Your task to perform on an android device: make emails show in primary in the gmail app Image 0: 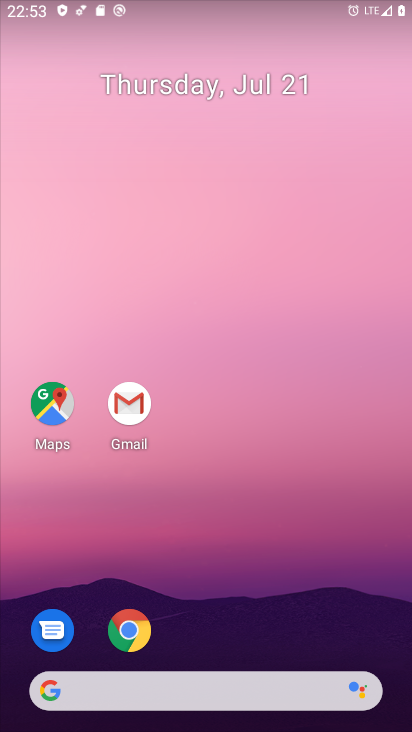
Step 0: drag from (247, 573) to (257, 131)
Your task to perform on an android device: make emails show in primary in the gmail app Image 1: 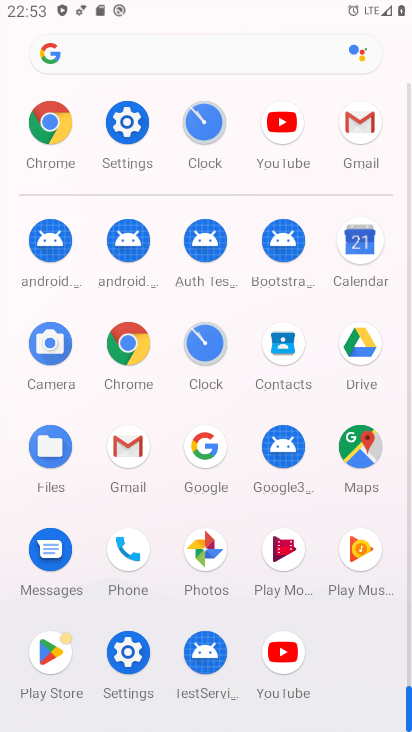
Step 1: click (132, 444)
Your task to perform on an android device: make emails show in primary in the gmail app Image 2: 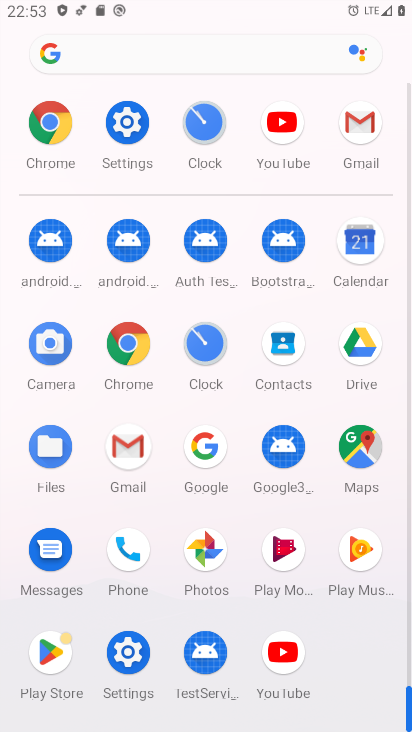
Step 2: click (132, 445)
Your task to perform on an android device: make emails show in primary in the gmail app Image 3: 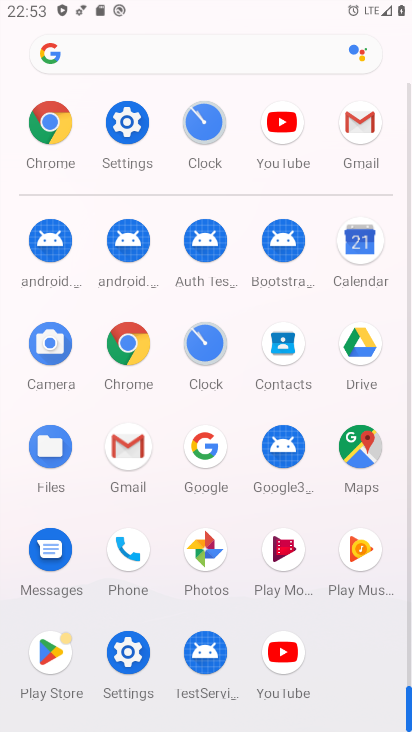
Step 3: click (132, 445)
Your task to perform on an android device: make emails show in primary in the gmail app Image 4: 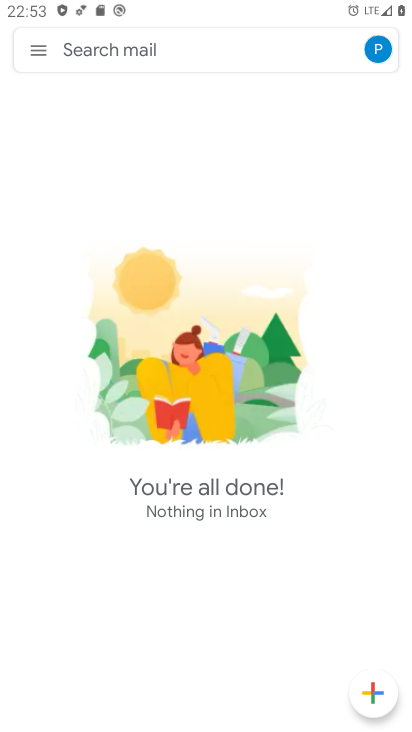
Step 4: click (28, 44)
Your task to perform on an android device: make emails show in primary in the gmail app Image 5: 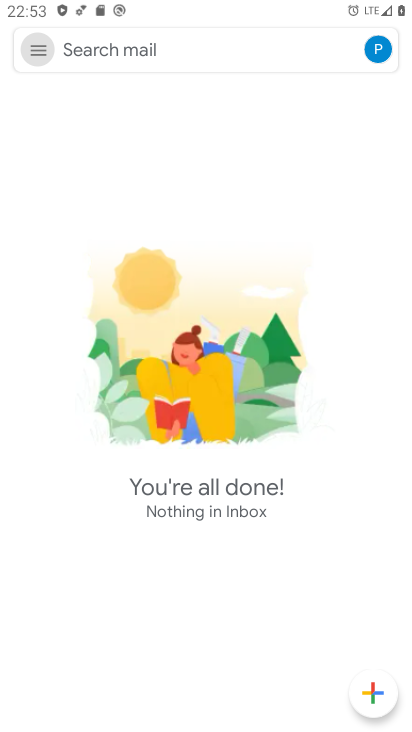
Step 5: click (29, 45)
Your task to perform on an android device: make emails show in primary in the gmail app Image 6: 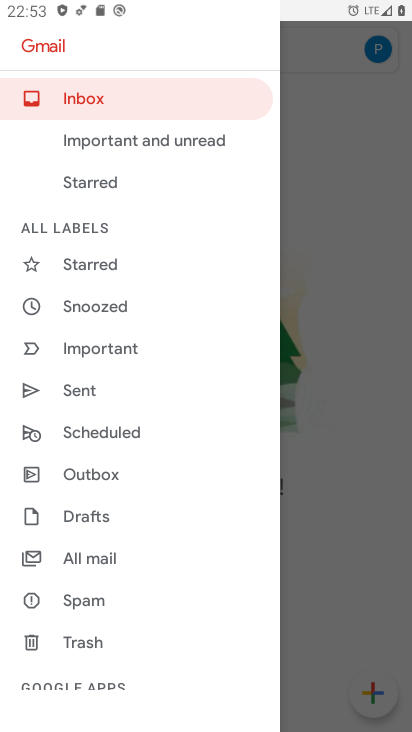
Step 6: drag from (108, 554) to (116, 288)
Your task to perform on an android device: make emails show in primary in the gmail app Image 7: 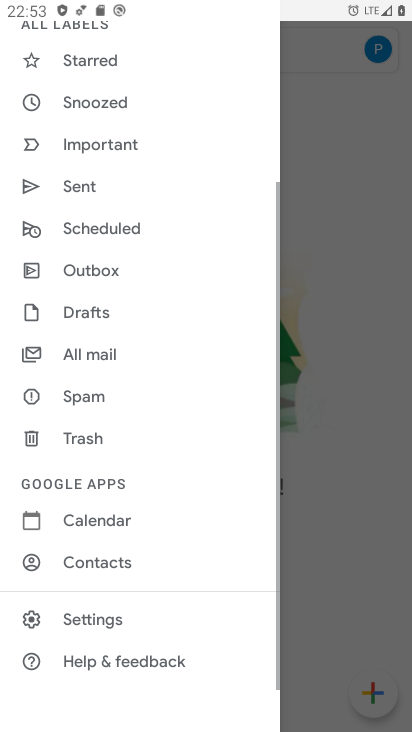
Step 7: drag from (144, 397) to (144, 214)
Your task to perform on an android device: make emails show in primary in the gmail app Image 8: 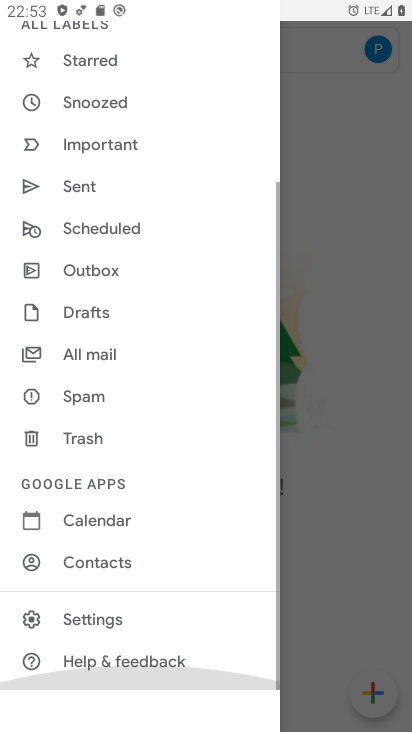
Step 8: drag from (144, 460) to (149, 358)
Your task to perform on an android device: make emails show in primary in the gmail app Image 9: 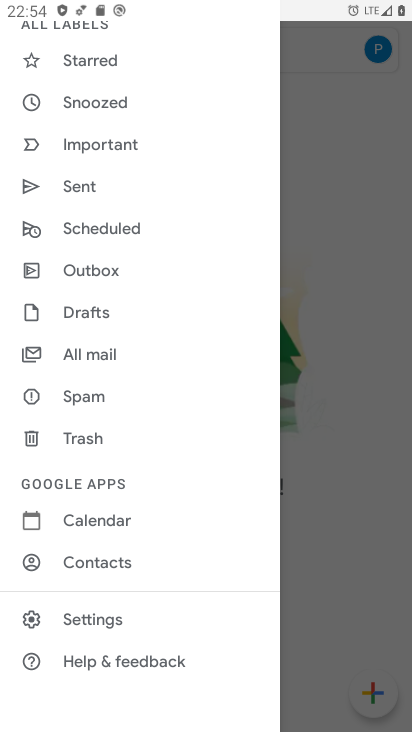
Step 9: click (96, 614)
Your task to perform on an android device: make emails show in primary in the gmail app Image 10: 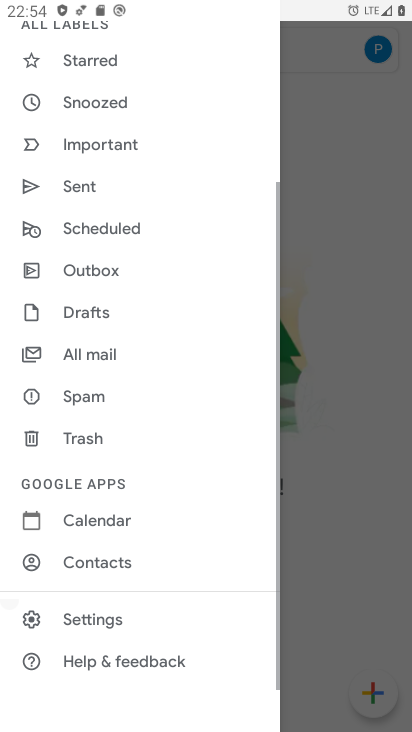
Step 10: click (94, 614)
Your task to perform on an android device: make emails show in primary in the gmail app Image 11: 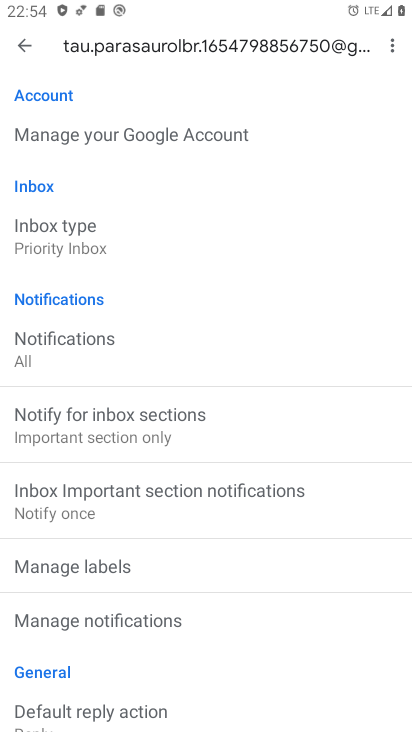
Step 11: click (46, 234)
Your task to perform on an android device: make emails show in primary in the gmail app Image 12: 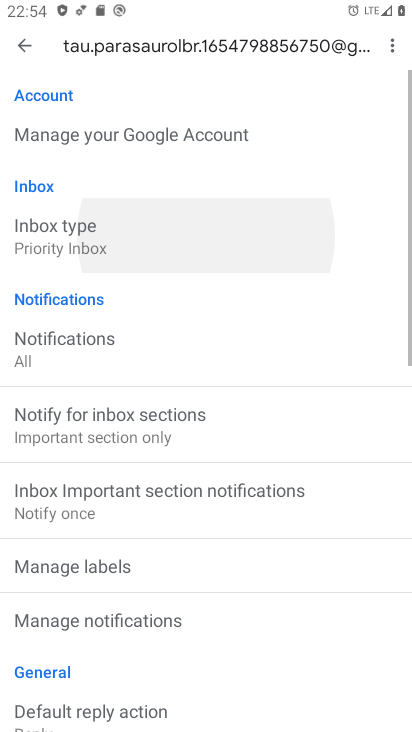
Step 12: click (45, 232)
Your task to perform on an android device: make emails show in primary in the gmail app Image 13: 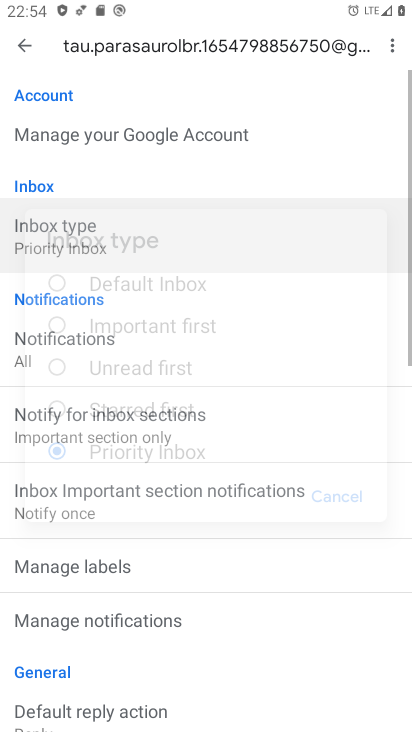
Step 13: click (45, 232)
Your task to perform on an android device: make emails show in primary in the gmail app Image 14: 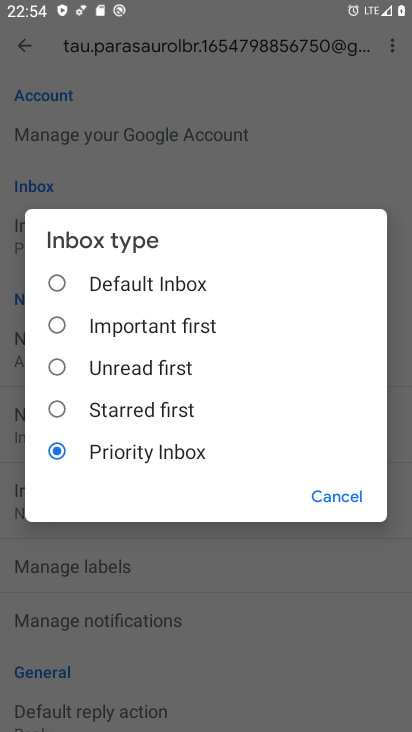
Step 14: click (48, 278)
Your task to perform on an android device: make emails show in primary in the gmail app Image 15: 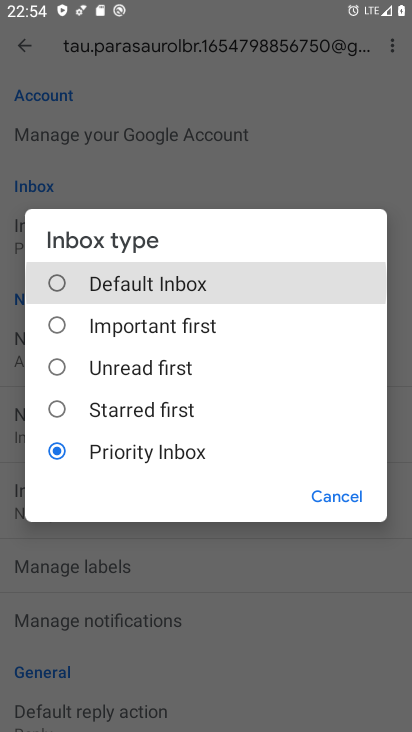
Step 15: click (49, 277)
Your task to perform on an android device: make emails show in primary in the gmail app Image 16: 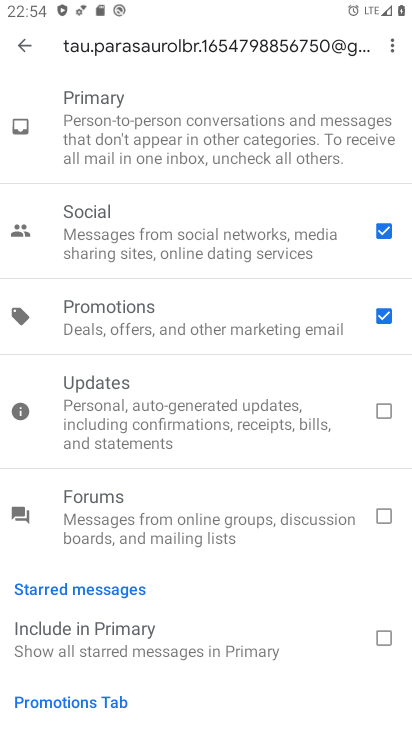
Step 16: click (103, 137)
Your task to perform on an android device: make emails show in primary in the gmail app Image 17: 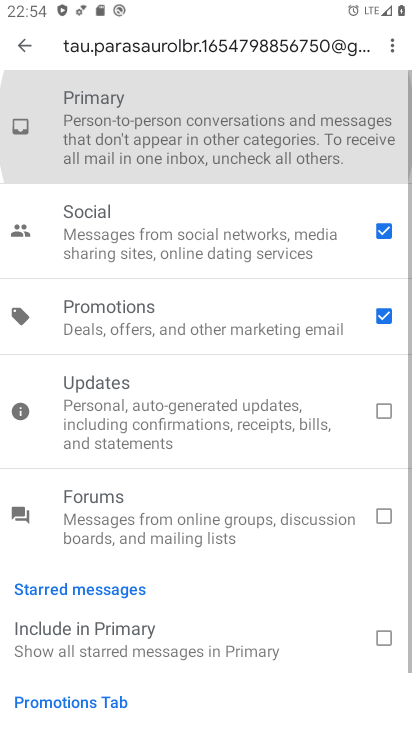
Step 17: click (102, 136)
Your task to perform on an android device: make emails show in primary in the gmail app Image 18: 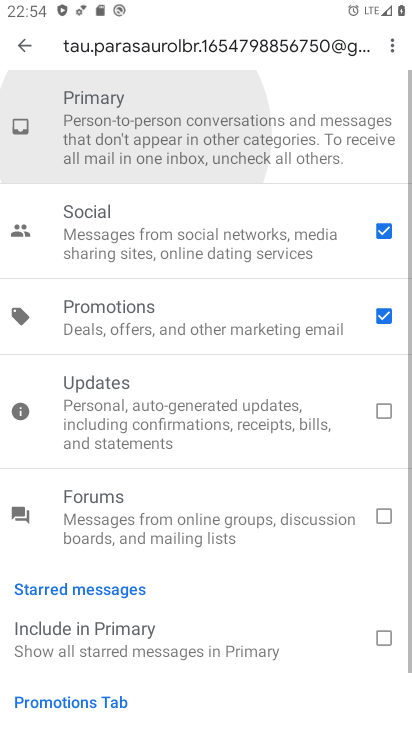
Step 18: click (102, 136)
Your task to perform on an android device: make emails show in primary in the gmail app Image 19: 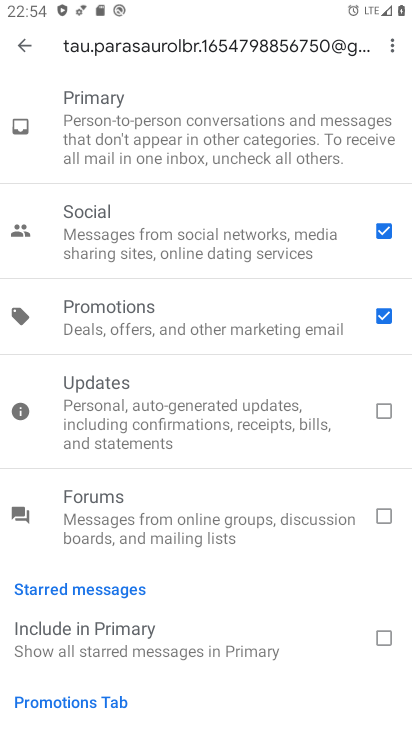
Step 19: task complete